Your task to perform on an android device: open chrome privacy settings Image 0: 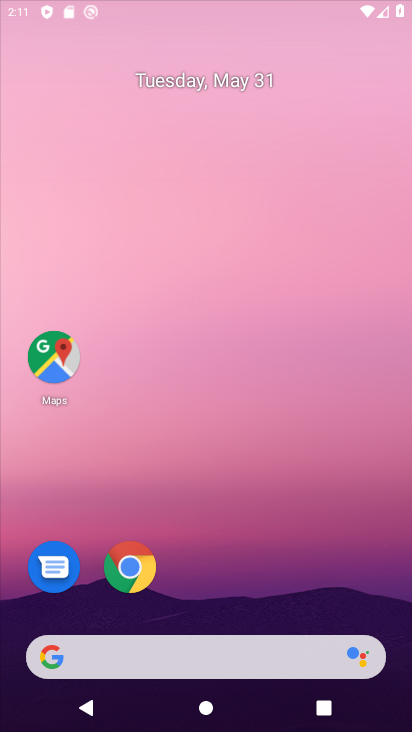
Step 0: drag from (247, 602) to (205, 179)
Your task to perform on an android device: open chrome privacy settings Image 1: 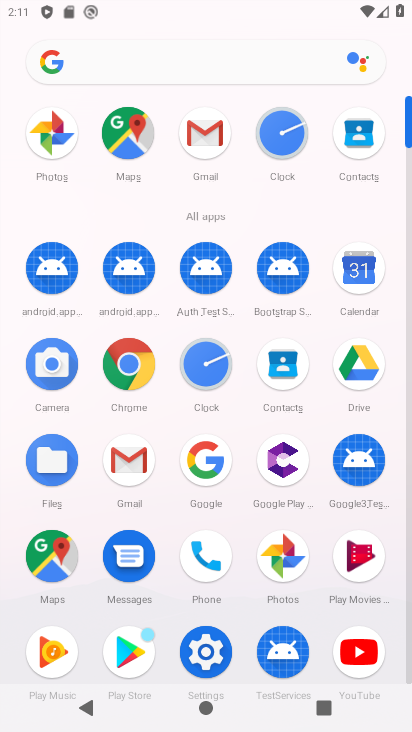
Step 1: click (142, 371)
Your task to perform on an android device: open chrome privacy settings Image 2: 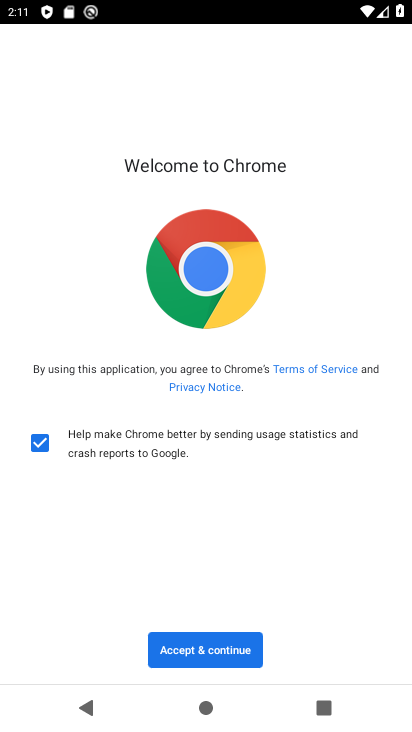
Step 2: click (231, 649)
Your task to perform on an android device: open chrome privacy settings Image 3: 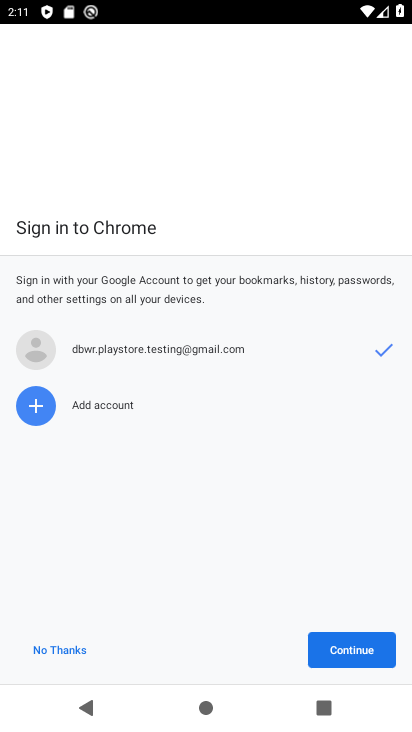
Step 3: click (371, 658)
Your task to perform on an android device: open chrome privacy settings Image 4: 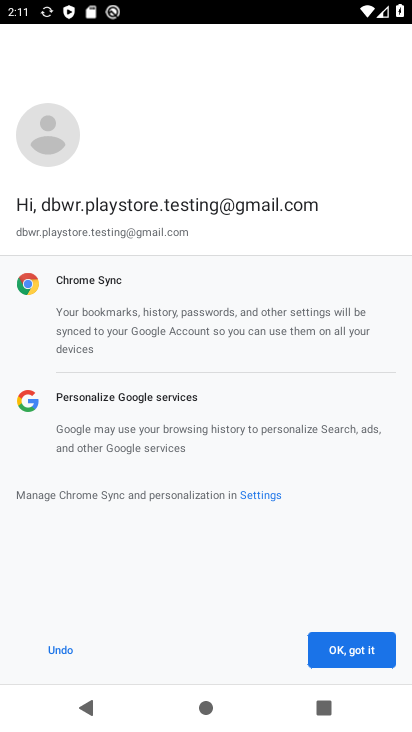
Step 4: click (371, 658)
Your task to perform on an android device: open chrome privacy settings Image 5: 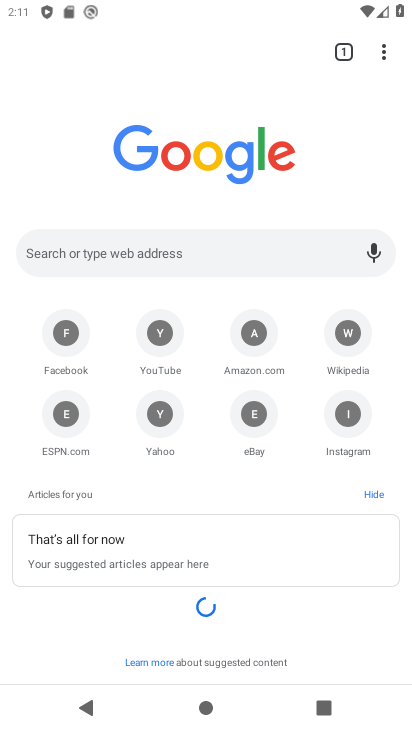
Step 5: click (388, 50)
Your task to perform on an android device: open chrome privacy settings Image 6: 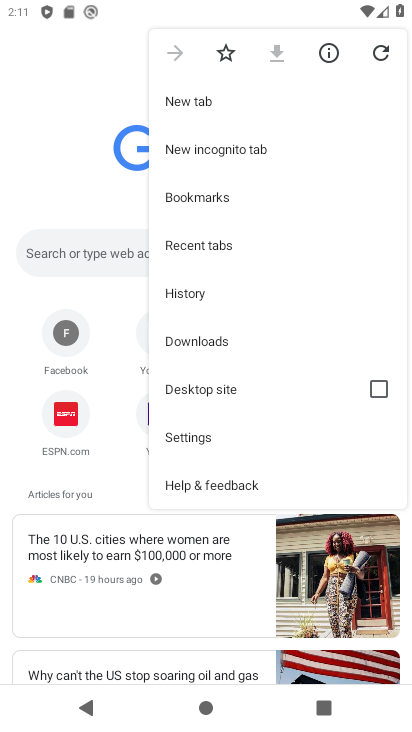
Step 6: click (270, 438)
Your task to perform on an android device: open chrome privacy settings Image 7: 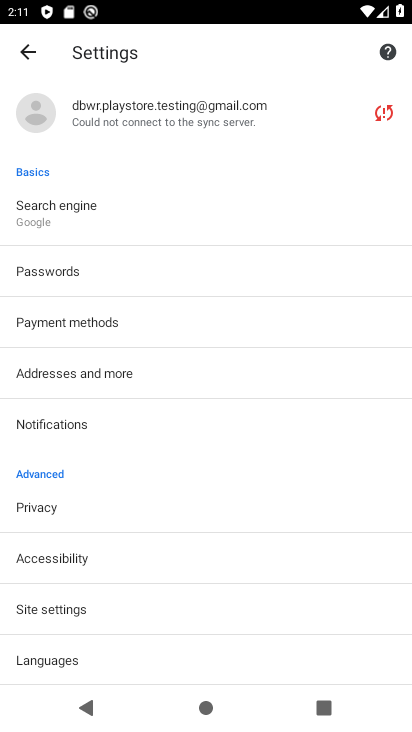
Step 7: click (181, 513)
Your task to perform on an android device: open chrome privacy settings Image 8: 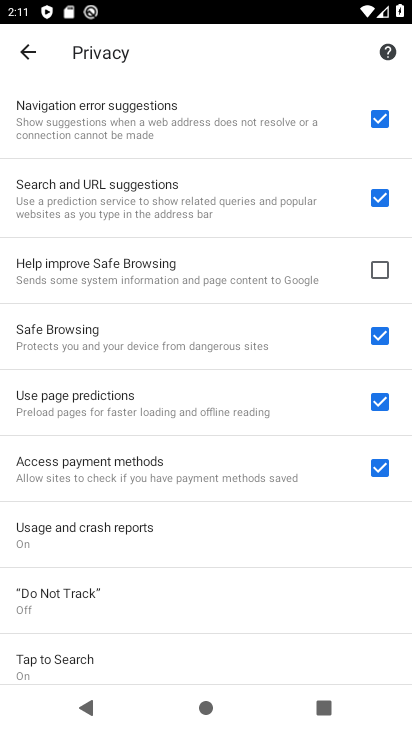
Step 8: task complete